Your task to perform on an android device: Open ESPN.com Image 0: 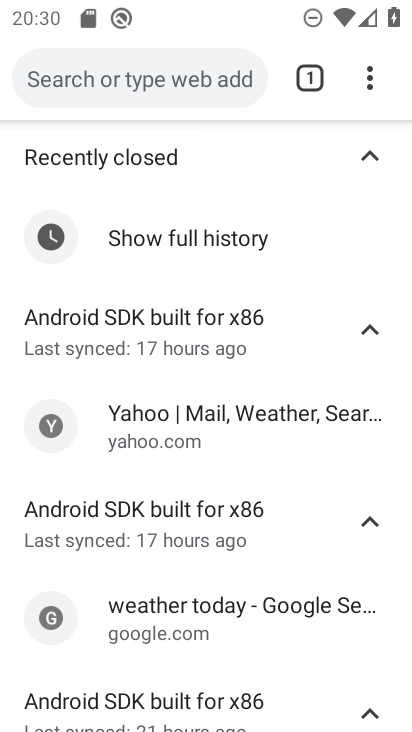
Step 0: press home button
Your task to perform on an android device: Open ESPN.com Image 1: 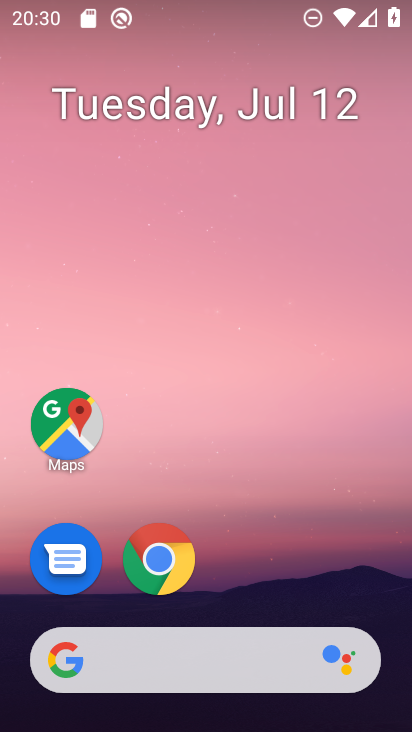
Step 1: drag from (373, 600) to (383, 119)
Your task to perform on an android device: Open ESPN.com Image 2: 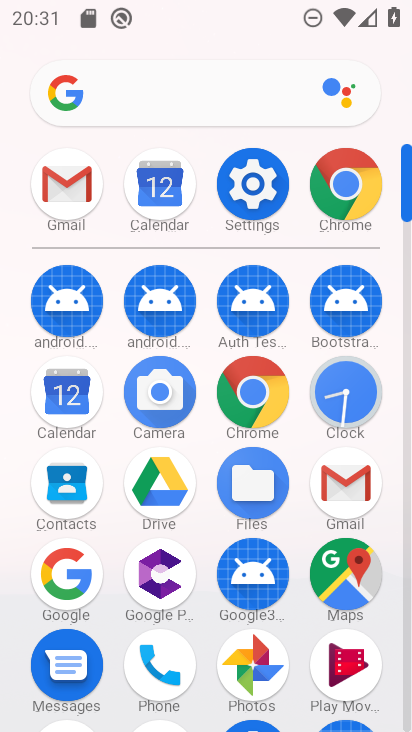
Step 2: click (250, 393)
Your task to perform on an android device: Open ESPN.com Image 3: 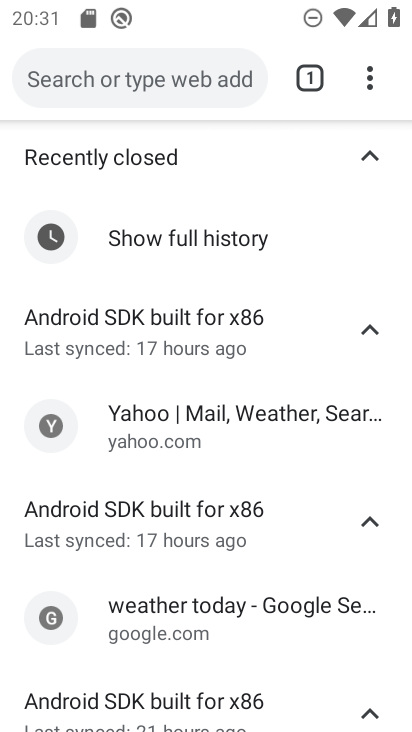
Step 3: click (194, 82)
Your task to perform on an android device: Open ESPN.com Image 4: 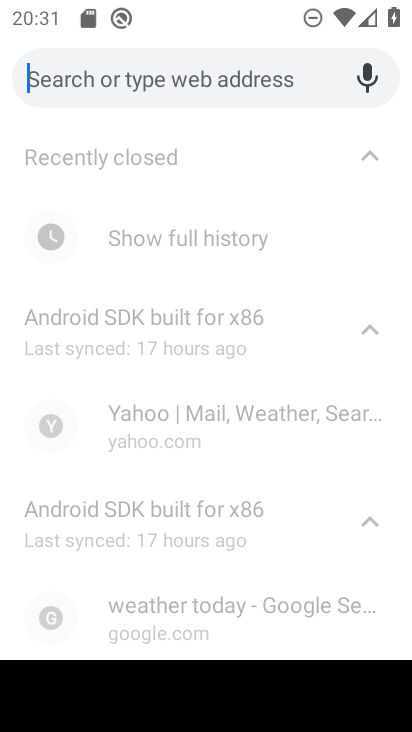
Step 4: type "espn.com"
Your task to perform on an android device: Open ESPN.com Image 5: 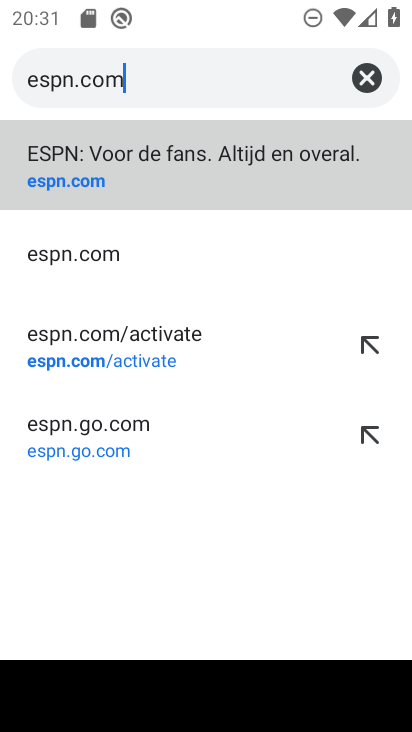
Step 5: click (344, 192)
Your task to perform on an android device: Open ESPN.com Image 6: 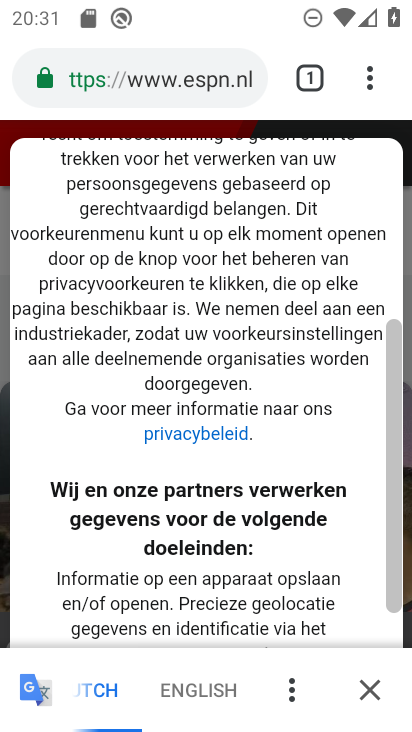
Step 6: task complete